Your task to perform on an android device: turn vacation reply on in the gmail app Image 0: 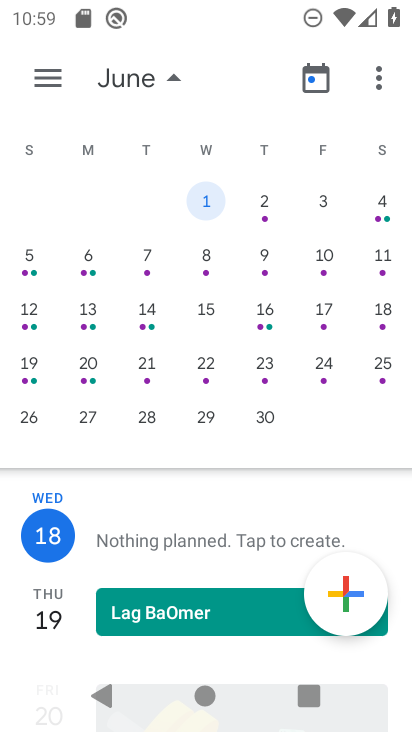
Step 0: press home button
Your task to perform on an android device: turn vacation reply on in the gmail app Image 1: 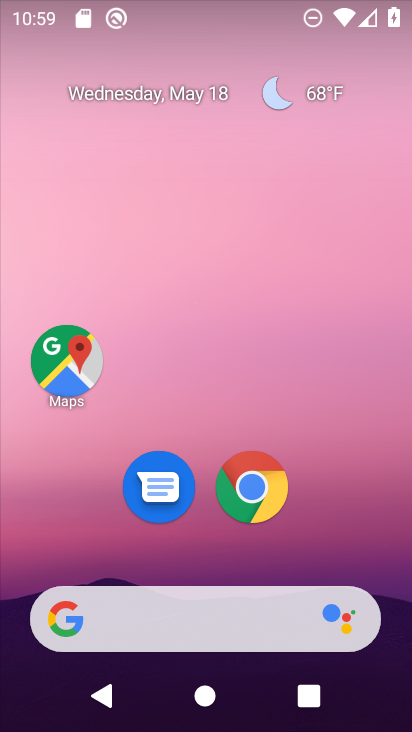
Step 1: drag from (337, 501) to (320, 47)
Your task to perform on an android device: turn vacation reply on in the gmail app Image 2: 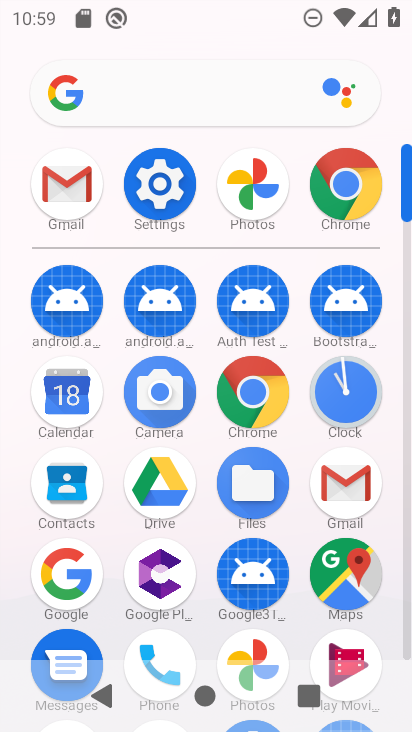
Step 2: click (355, 488)
Your task to perform on an android device: turn vacation reply on in the gmail app Image 3: 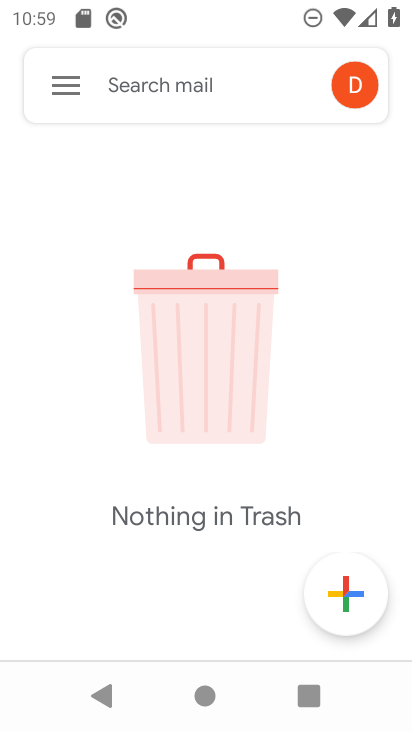
Step 3: click (74, 94)
Your task to perform on an android device: turn vacation reply on in the gmail app Image 4: 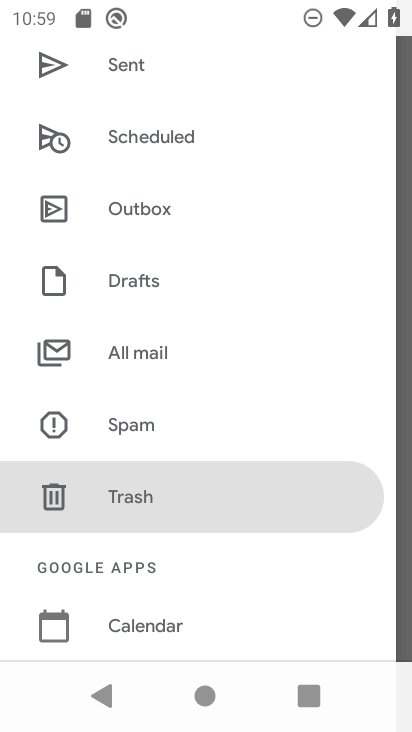
Step 4: drag from (220, 589) to (216, 266)
Your task to perform on an android device: turn vacation reply on in the gmail app Image 5: 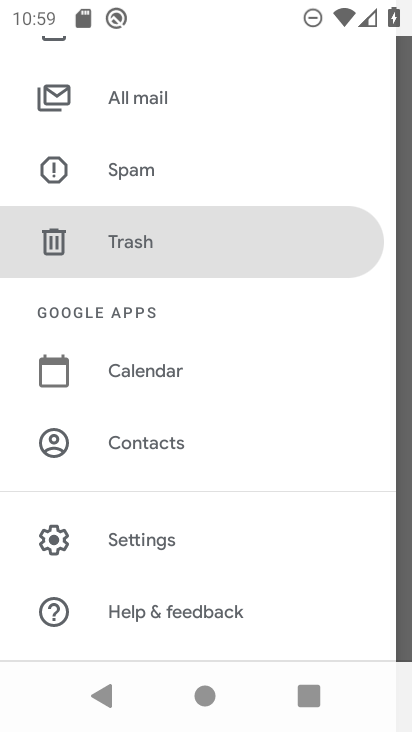
Step 5: click (180, 551)
Your task to perform on an android device: turn vacation reply on in the gmail app Image 6: 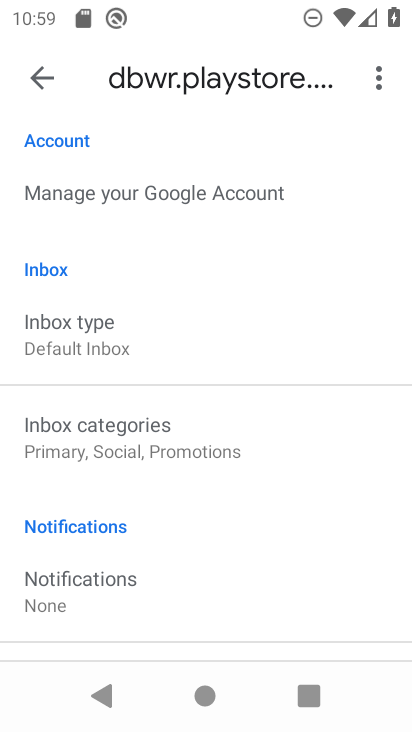
Step 6: drag from (268, 544) to (245, 263)
Your task to perform on an android device: turn vacation reply on in the gmail app Image 7: 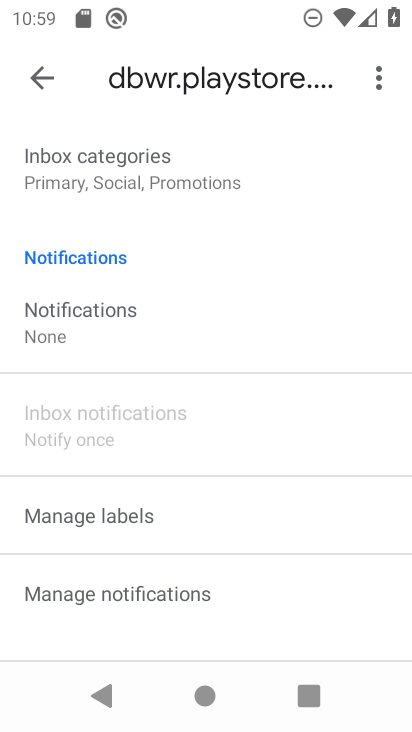
Step 7: drag from (301, 594) to (303, 291)
Your task to perform on an android device: turn vacation reply on in the gmail app Image 8: 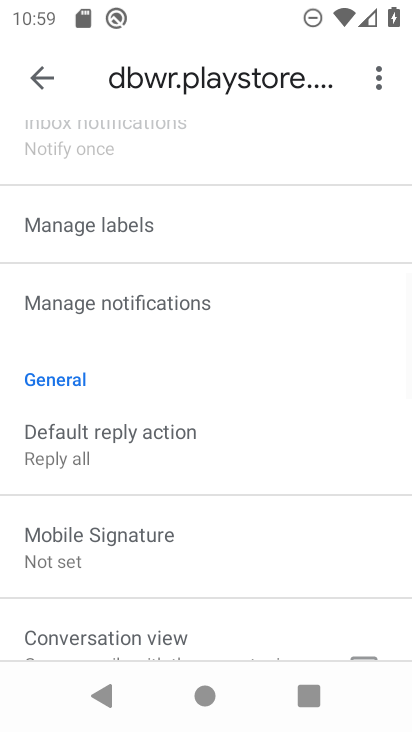
Step 8: drag from (305, 605) to (288, 265)
Your task to perform on an android device: turn vacation reply on in the gmail app Image 9: 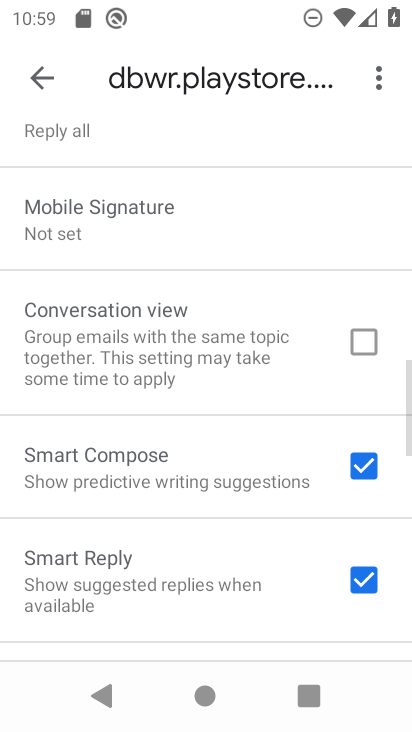
Step 9: drag from (296, 512) to (296, 239)
Your task to perform on an android device: turn vacation reply on in the gmail app Image 10: 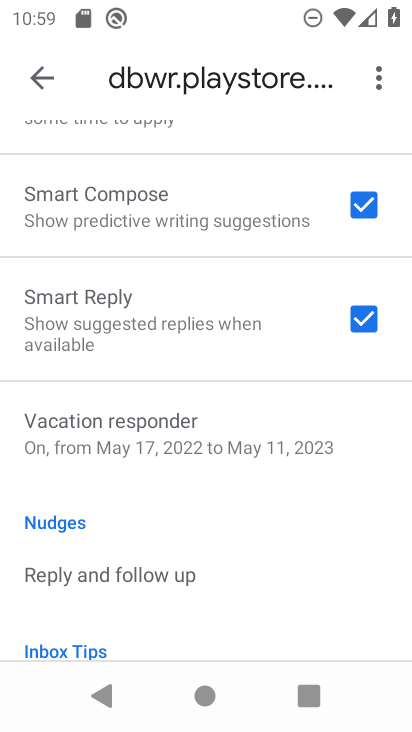
Step 10: click (215, 417)
Your task to perform on an android device: turn vacation reply on in the gmail app Image 11: 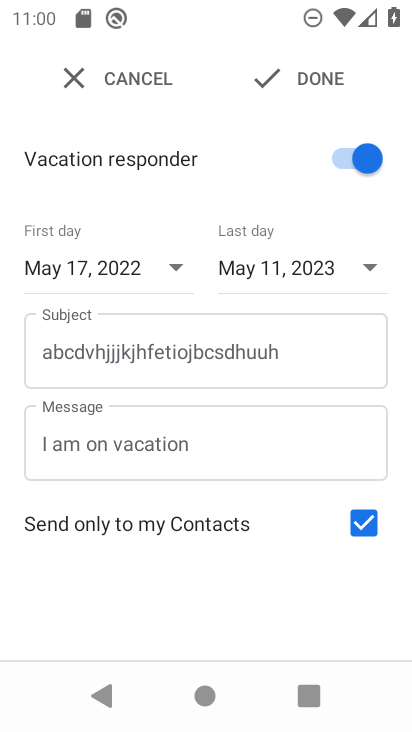
Step 11: task complete